Your task to perform on an android device: Do I have any events today? Image 0: 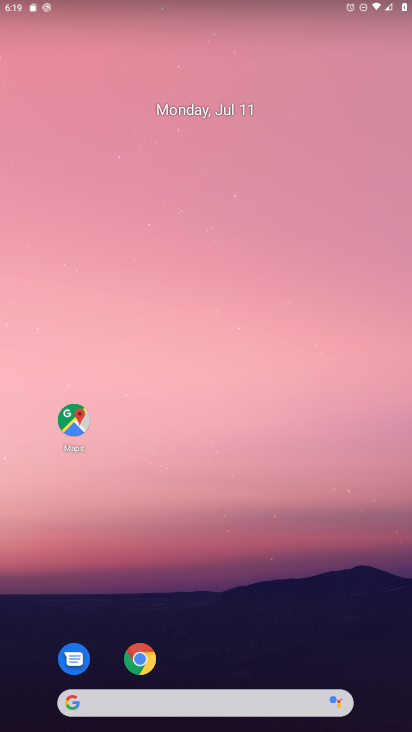
Step 0: drag from (386, 600) to (323, 250)
Your task to perform on an android device: Do I have any events today? Image 1: 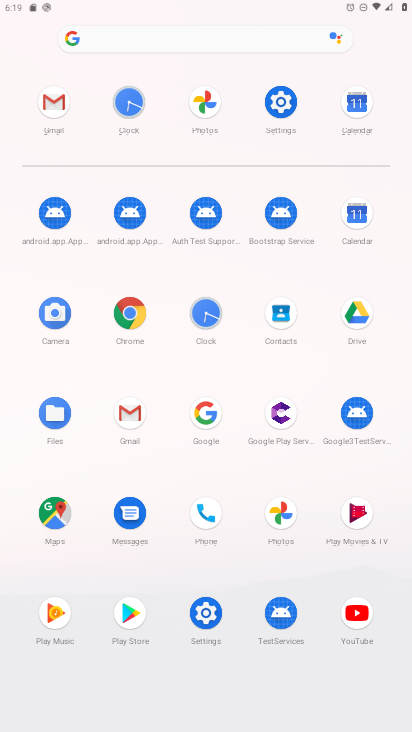
Step 1: click (356, 212)
Your task to perform on an android device: Do I have any events today? Image 2: 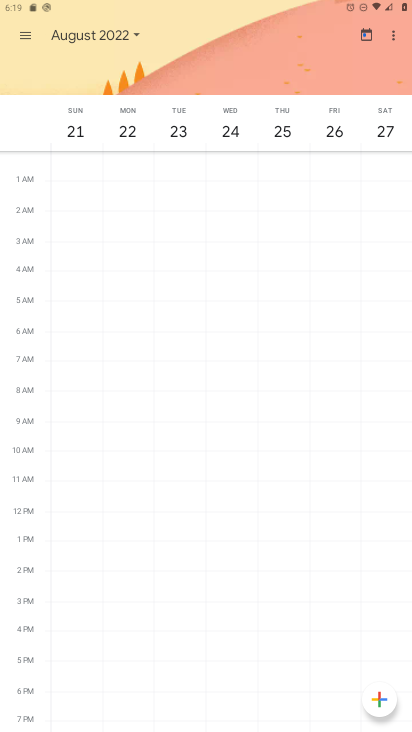
Step 2: click (27, 35)
Your task to perform on an android device: Do I have any events today? Image 3: 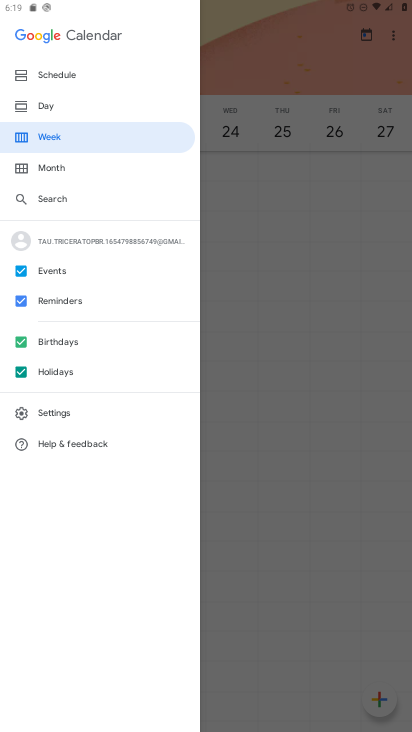
Step 3: click (42, 110)
Your task to perform on an android device: Do I have any events today? Image 4: 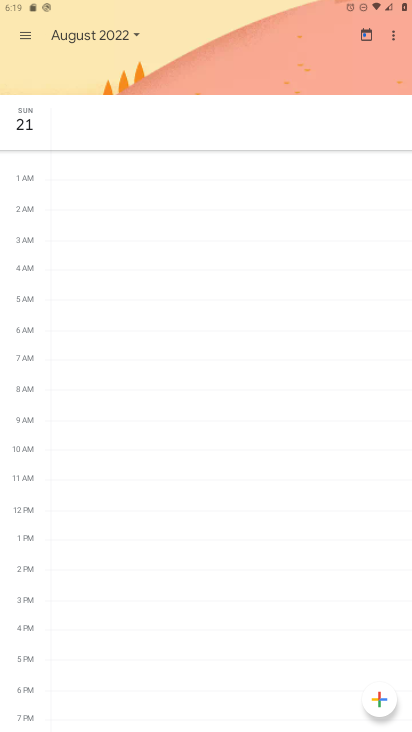
Step 4: click (132, 36)
Your task to perform on an android device: Do I have any events today? Image 5: 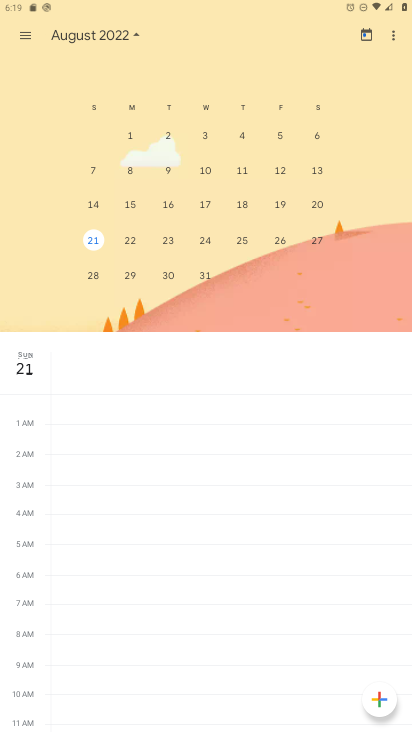
Step 5: drag from (84, 204) to (366, 208)
Your task to perform on an android device: Do I have any events today? Image 6: 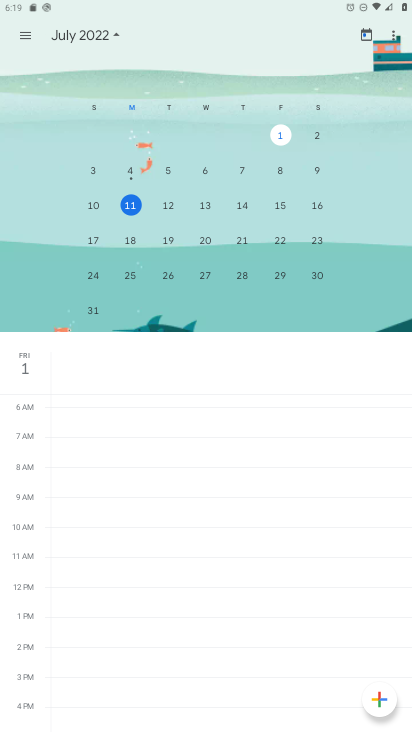
Step 6: click (128, 204)
Your task to perform on an android device: Do I have any events today? Image 7: 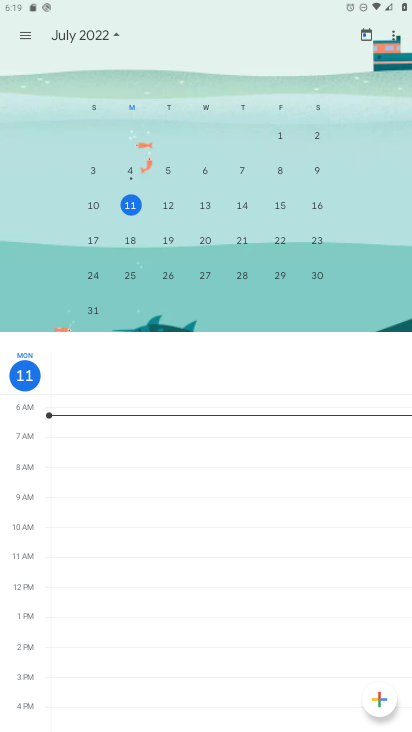
Step 7: task complete